Your task to perform on an android device: open chrome and create a bookmark for the current page Image 0: 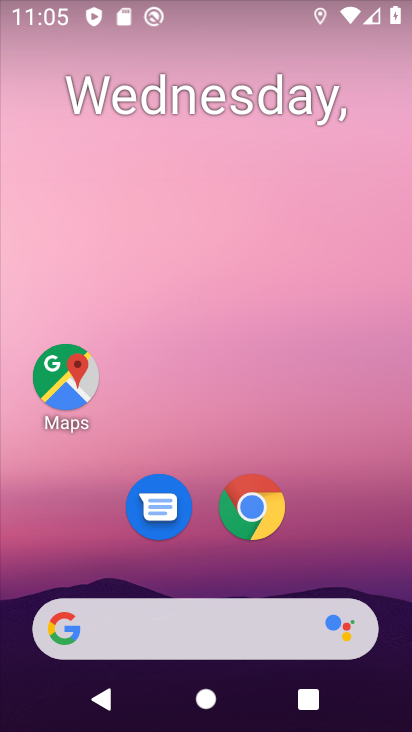
Step 0: drag from (356, 551) to (368, 145)
Your task to perform on an android device: open chrome and create a bookmark for the current page Image 1: 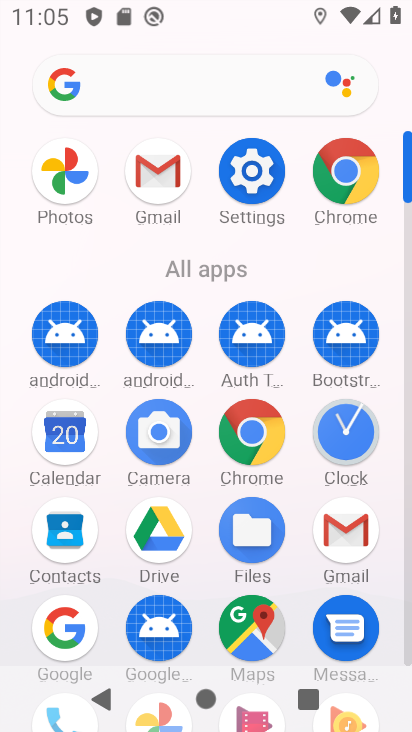
Step 1: click (255, 432)
Your task to perform on an android device: open chrome and create a bookmark for the current page Image 2: 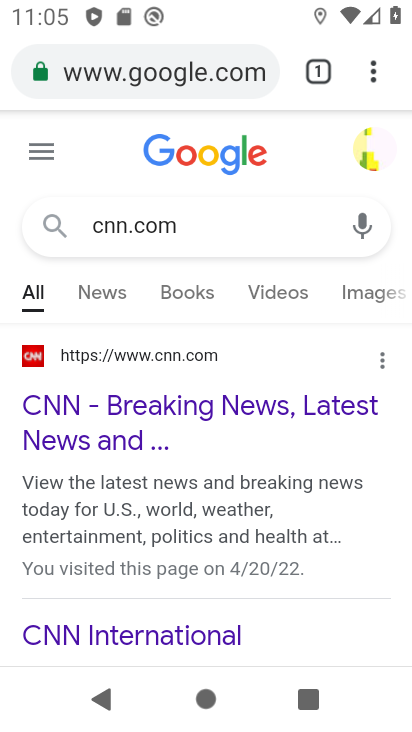
Step 2: click (371, 67)
Your task to perform on an android device: open chrome and create a bookmark for the current page Image 3: 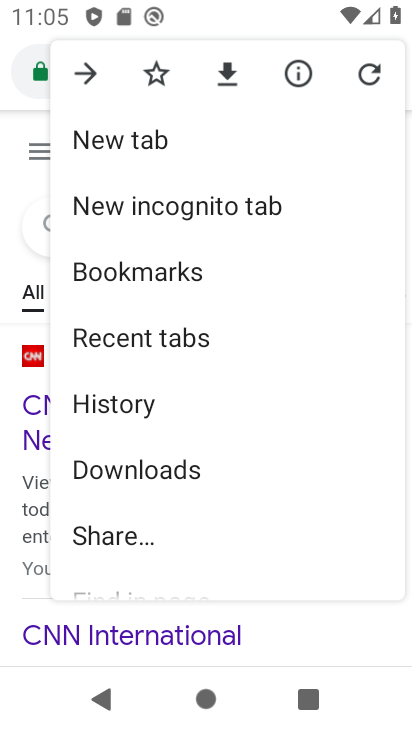
Step 3: click (151, 76)
Your task to perform on an android device: open chrome and create a bookmark for the current page Image 4: 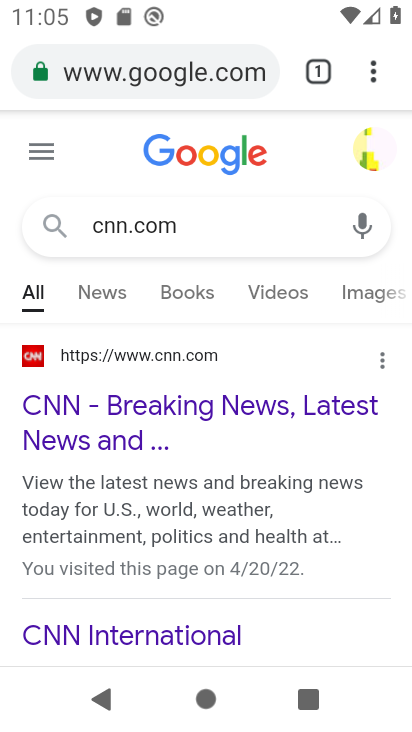
Step 4: task complete